Your task to perform on an android device: What's the weather going to be this weekend? Image 0: 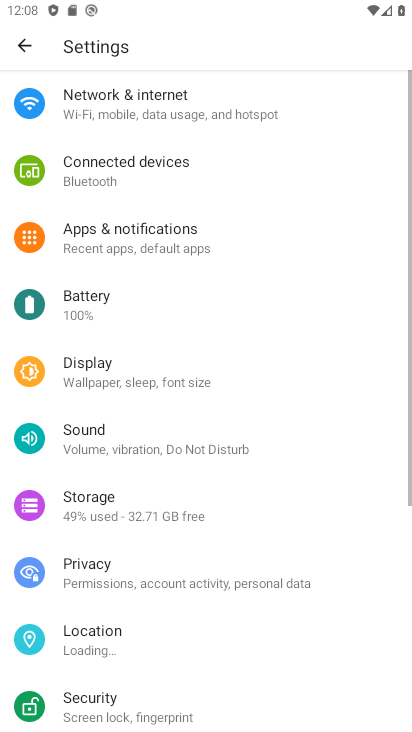
Step 0: press home button
Your task to perform on an android device: What's the weather going to be this weekend? Image 1: 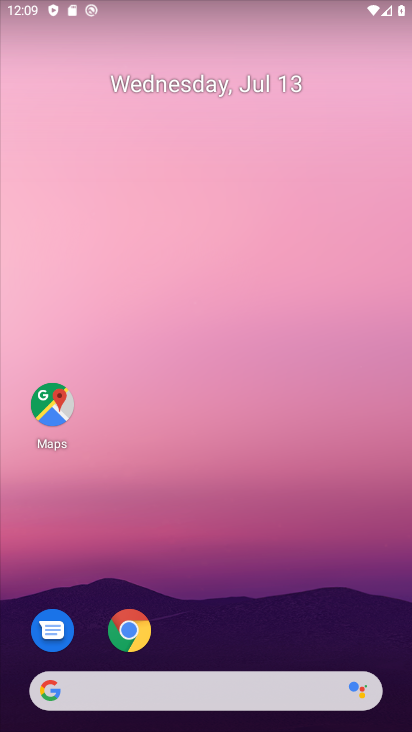
Step 1: click (175, 685)
Your task to perform on an android device: What's the weather going to be this weekend? Image 2: 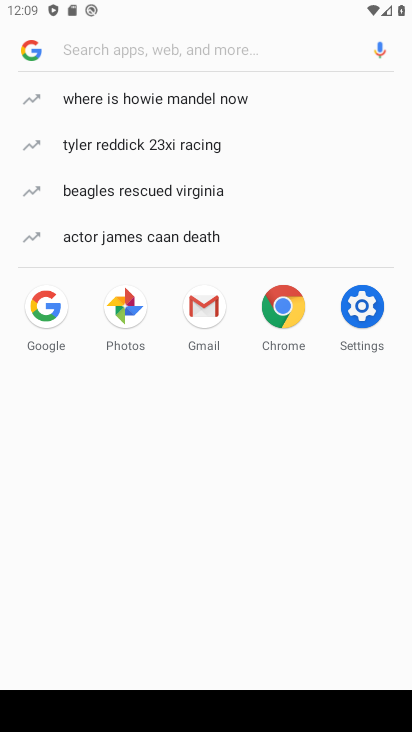
Step 2: type "weather"
Your task to perform on an android device: What's the weather going to be this weekend? Image 3: 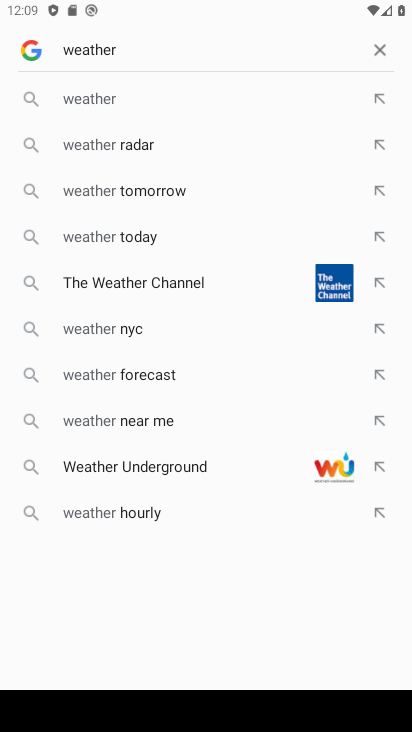
Step 3: click (129, 93)
Your task to perform on an android device: What's the weather going to be this weekend? Image 4: 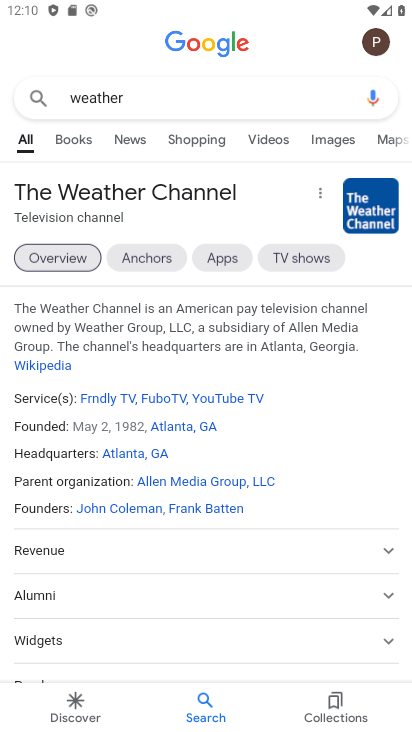
Step 4: task complete